Your task to perform on an android device: allow notifications from all sites in the chrome app Image 0: 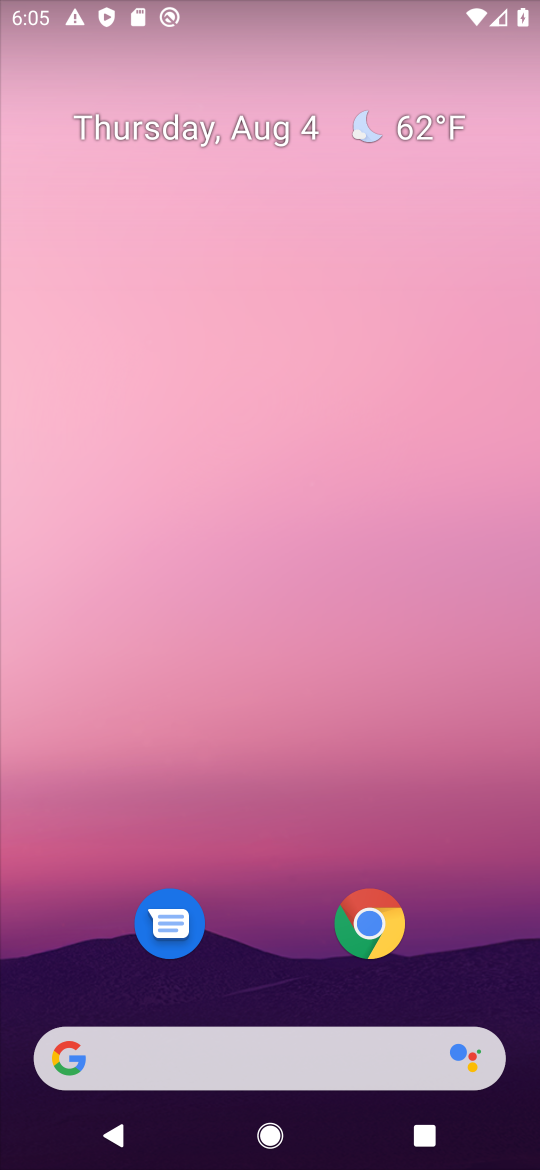
Step 0: drag from (469, 972) to (331, 509)
Your task to perform on an android device: allow notifications from all sites in the chrome app Image 1: 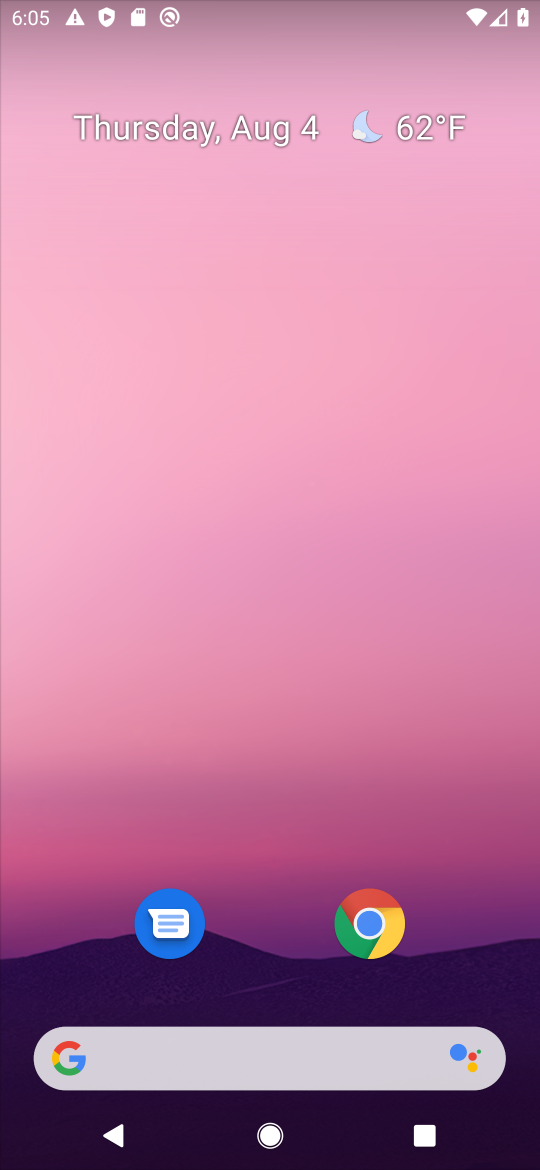
Step 1: click (381, 924)
Your task to perform on an android device: allow notifications from all sites in the chrome app Image 2: 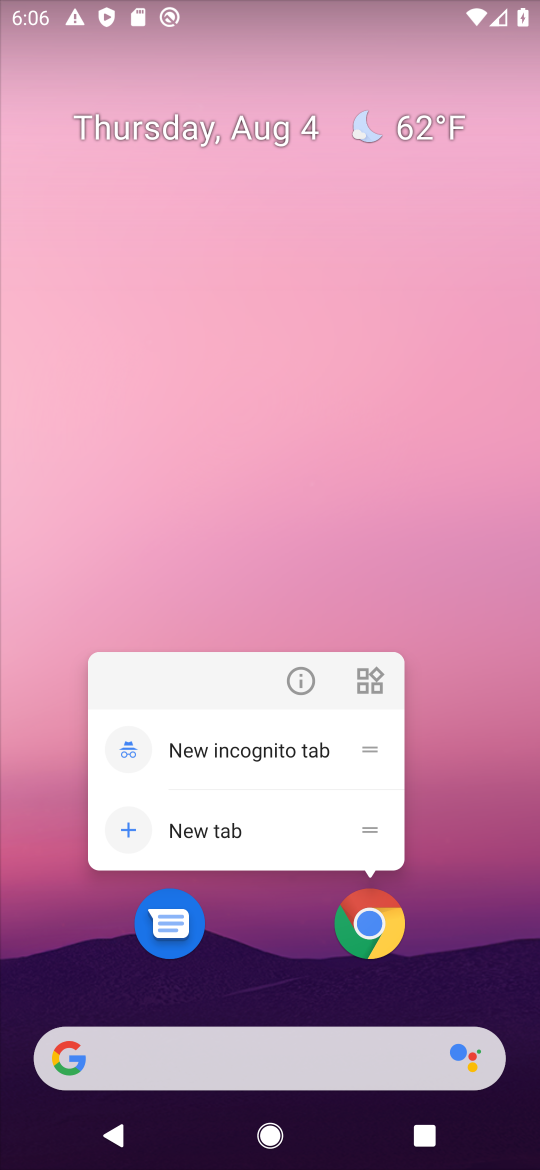
Step 2: click (301, 690)
Your task to perform on an android device: allow notifications from all sites in the chrome app Image 3: 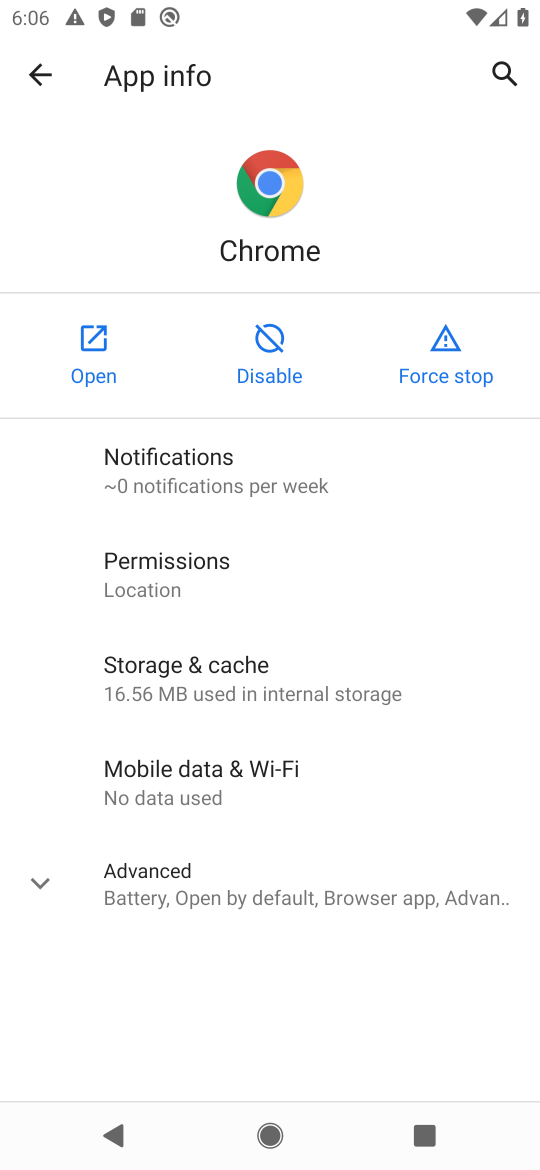
Step 3: click (209, 471)
Your task to perform on an android device: allow notifications from all sites in the chrome app Image 4: 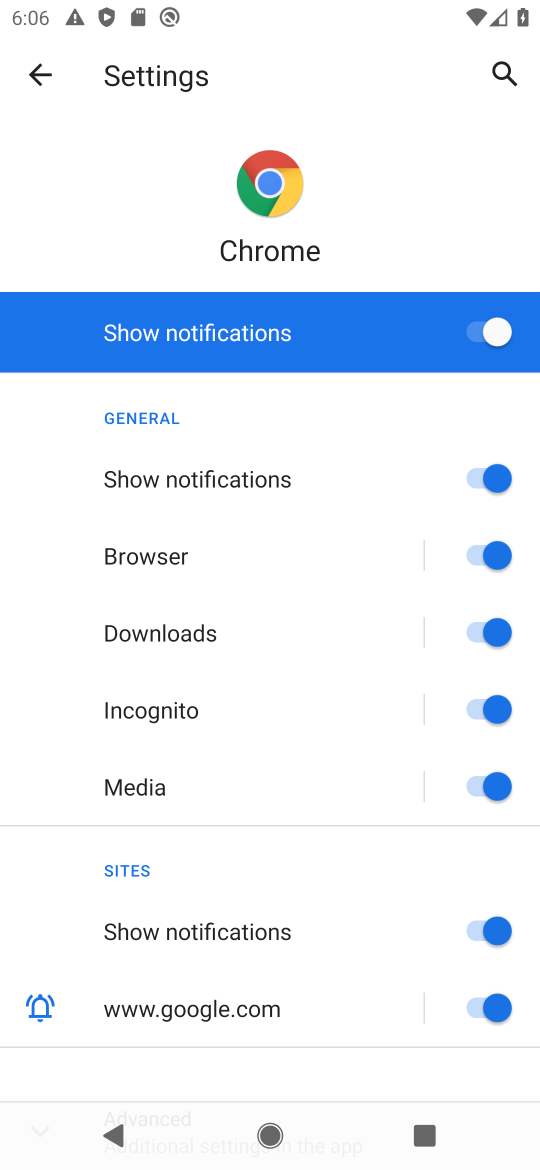
Step 4: task complete